Your task to perform on an android device: toggle notification dots Image 0: 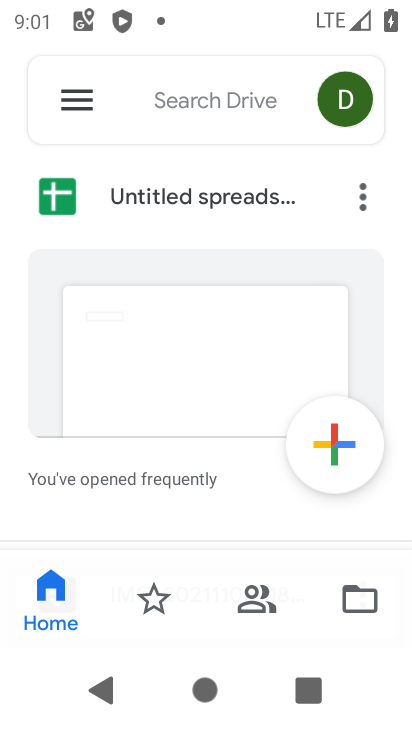
Step 0: press home button
Your task to perform on an android device: toggle notification dots Image 1: 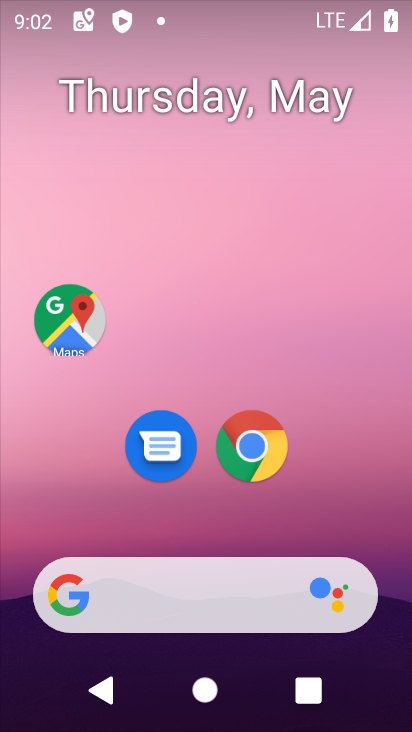
Step 1: drag from (367, 504) to (314, 56)
Your task to perform on an android device: toggle notification dots Image 2: 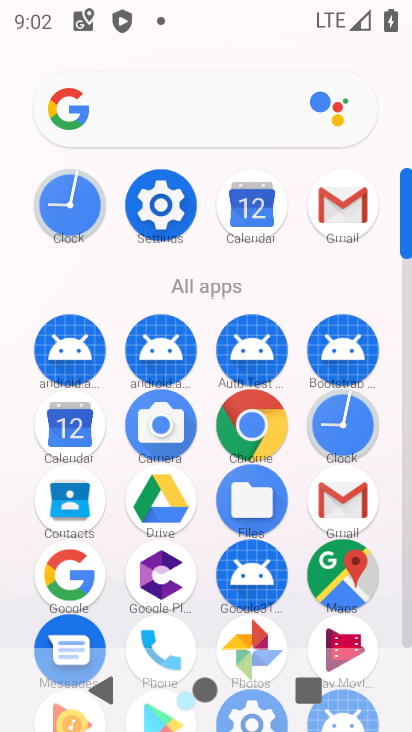
Step 2: click (405, 633)
Your task to perform on an android device: toggle notification dots Image 3: 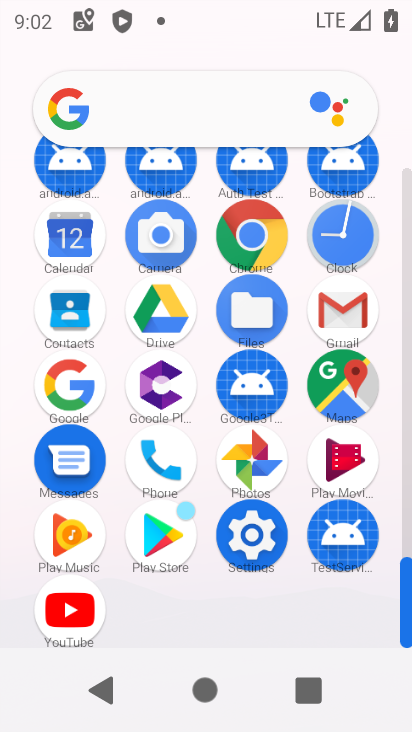
Step 3: click (249, 534)
Your task to perform on an android device: toggle notification dots Image 4: 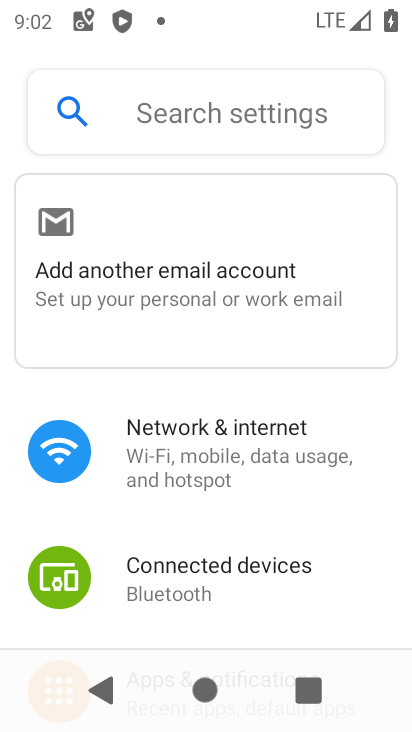
Step 4: drag from (333, 572) to (335, 128)
Your task to perform on an android device: toggle notification dots Image 5: 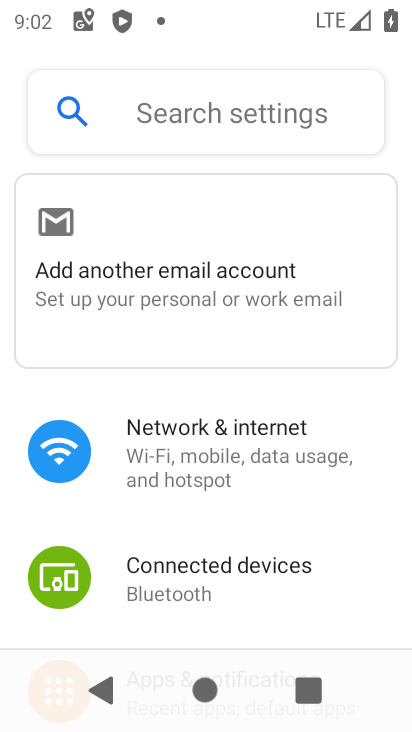
Step 5: drag from (333, 557) to (351, 146)
Your task to perform on an android device: toggle notification dots Image 6: 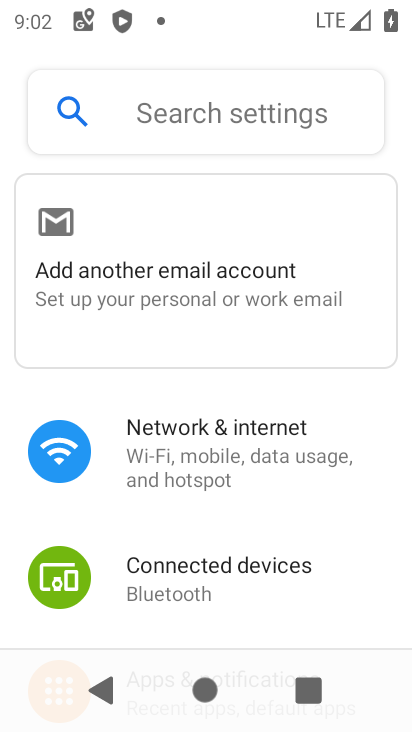
Step 6: drag from (350, 589) to (348, 183)
Your task to perform on an android device: toggle notification dots Image 7: 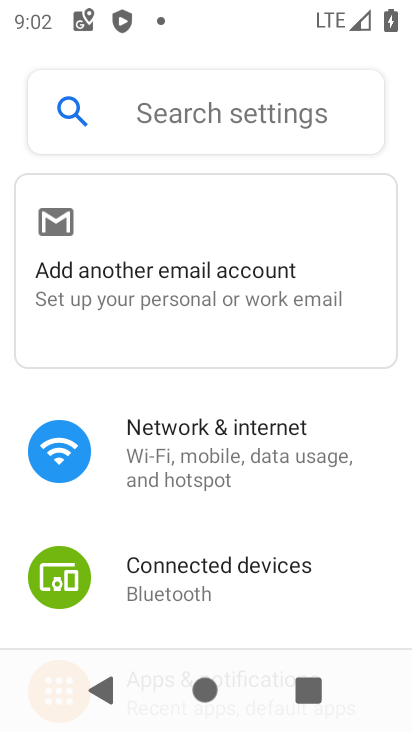
Step 7: drag from (364, 563) to (356, 155)
Your task to perform on an android device: toggle notification dots Image 8: 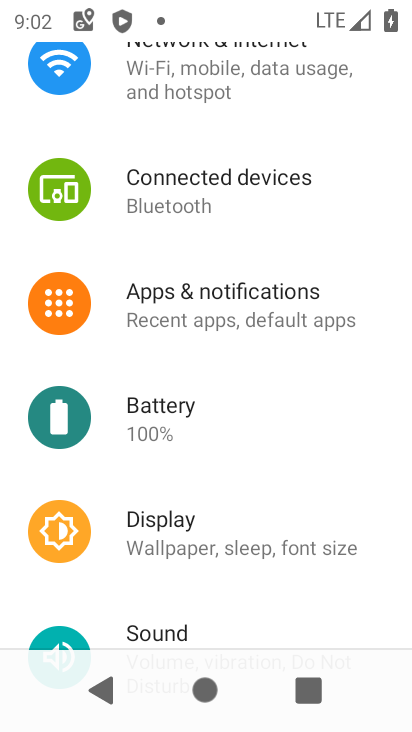
Step 8: click (211, 286)
Your task to perform on an android device: toggle notification dots Image 9: 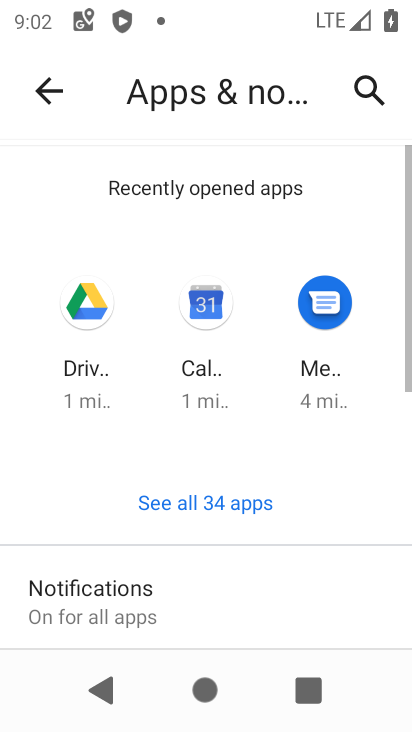
Step 9: drag from (249, 590) to (285, 130)
Your task to perform on an android device: toggle notification dots Image 10: 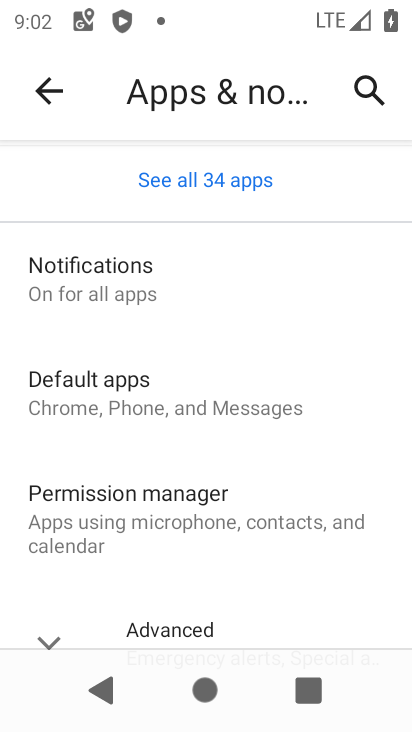
Step 10: click (101, 270)
Your task to perform on an android device: toggle notification dots Image 11: 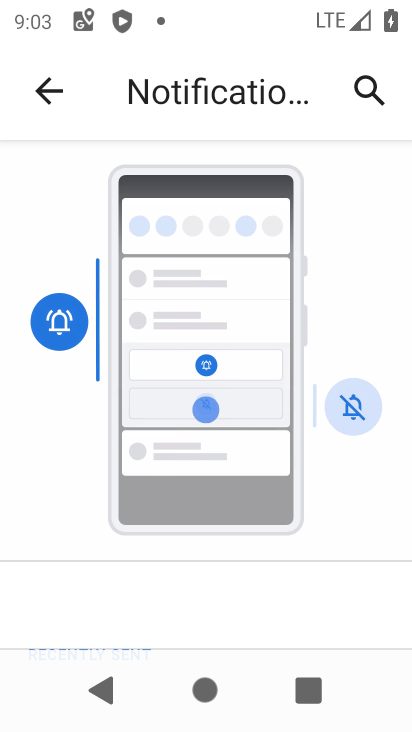
Step 11: drag from (194, 594) to (191, 266)
Your task to perform on an android device: toggle notification dots Image 12: 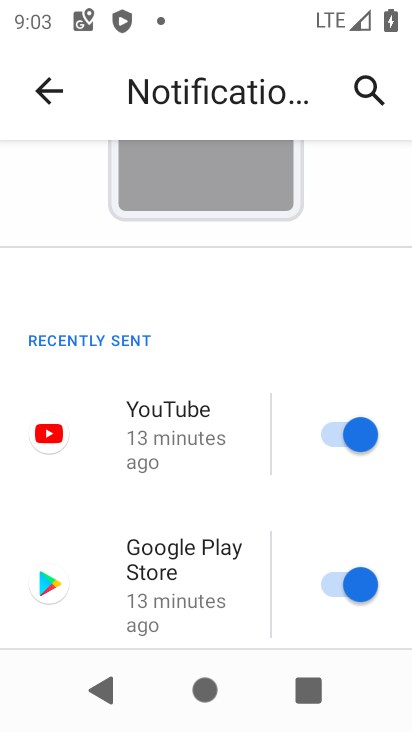
Step 12: drag from (267, 629) to (282, 154)
Your task to perform on an android device: toggle notification dots Image 13: 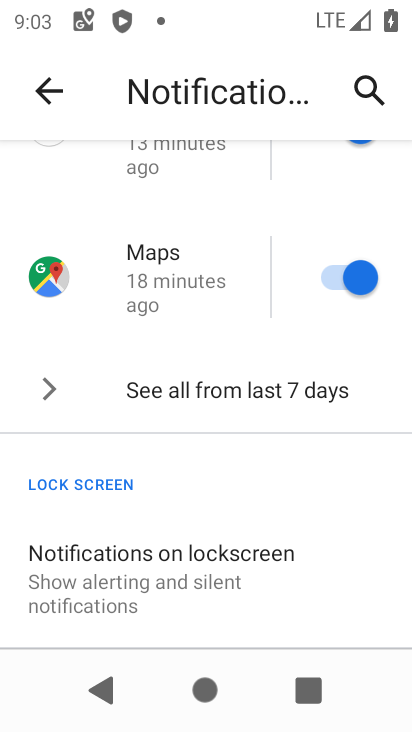
Step 13: drag from (282, 527) to (253, 91)
Your task to perform on an android device: toggle notification dots Image 14: 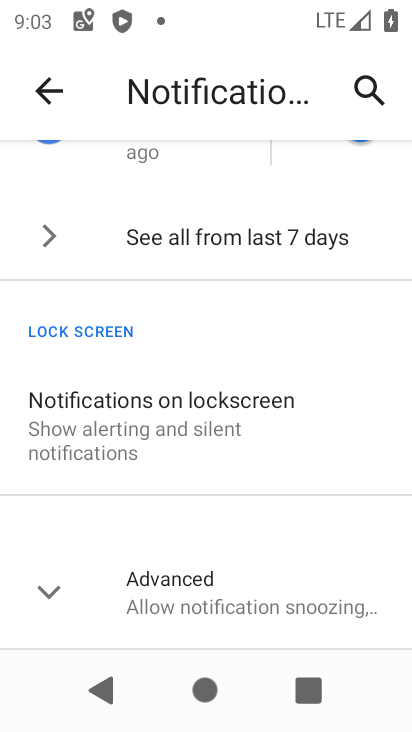
Step 14: click (50, 602)
Your task to perform on an android device: toggle notification dots Image 15: 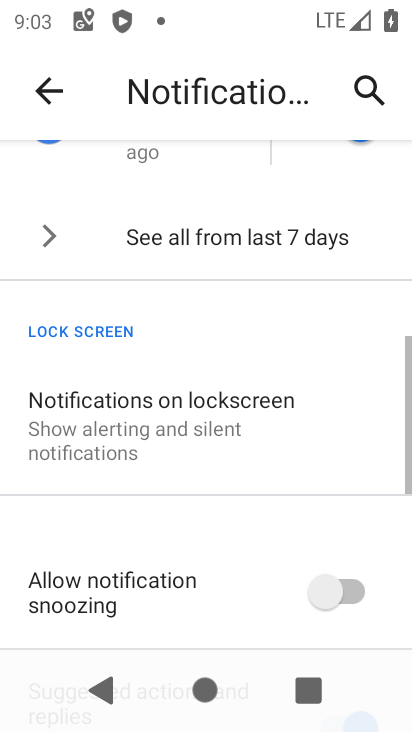
Step 15: drag from (315, 566) to (274, 287)
Your task to perform on an android device: toggle notification dots Image 16: 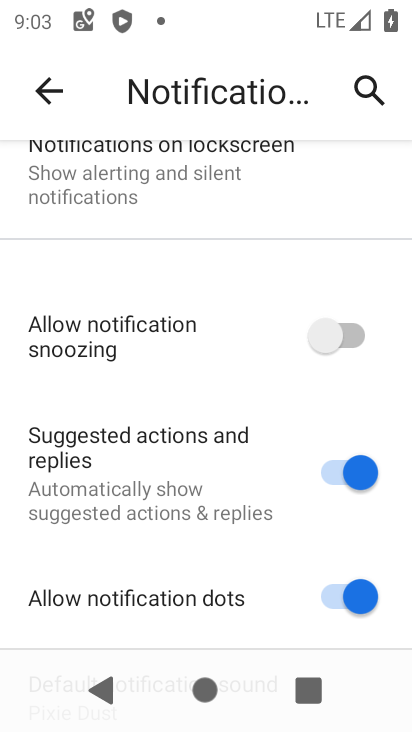
Step 16: click (341, 593)
Your task to perform on an android device: toggle notification dots Image 17: 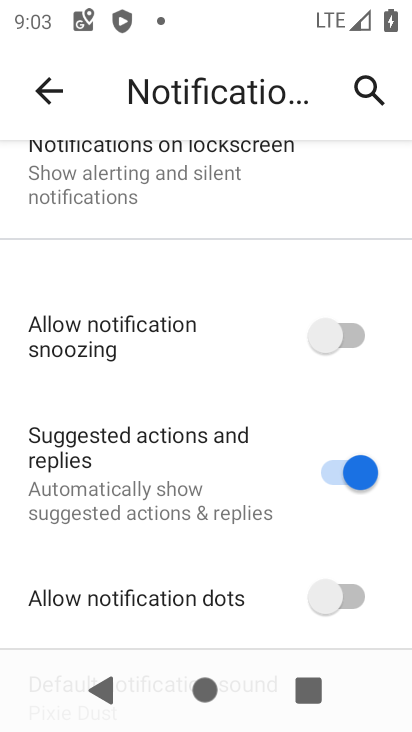
Step 17: task complete